Your task to perform on an android device: Open the map Image 0: 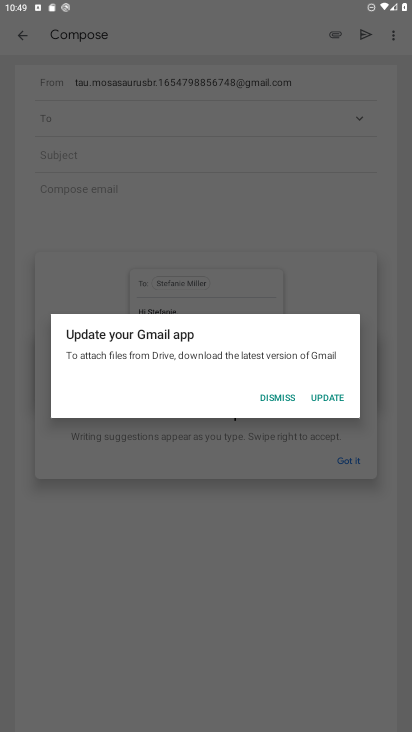
Step 0: press home button
Your task to perform on an android device: Open the map Image 1: 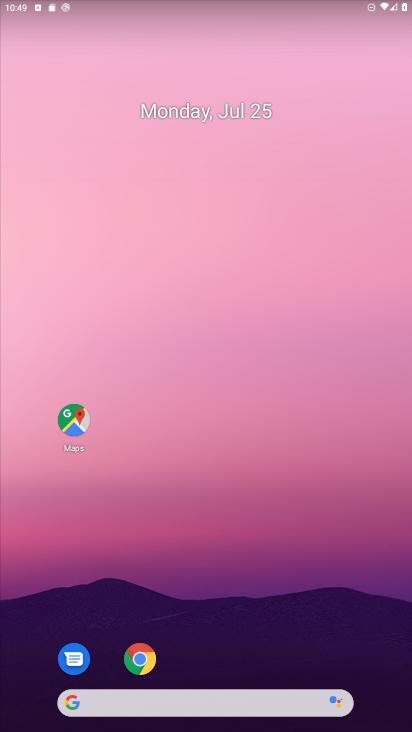
Step 1: click (79, 421)
Your task to perform on an android device: Open the map Image 2: 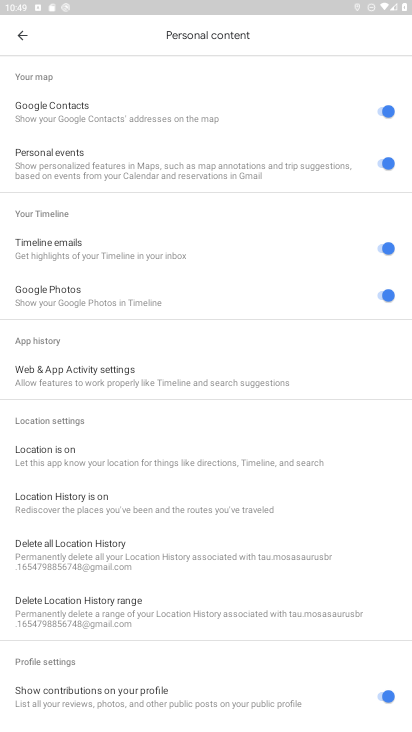
Step 2: click (19, 37)
Your task to perform on an android device: Open the map Image 3: 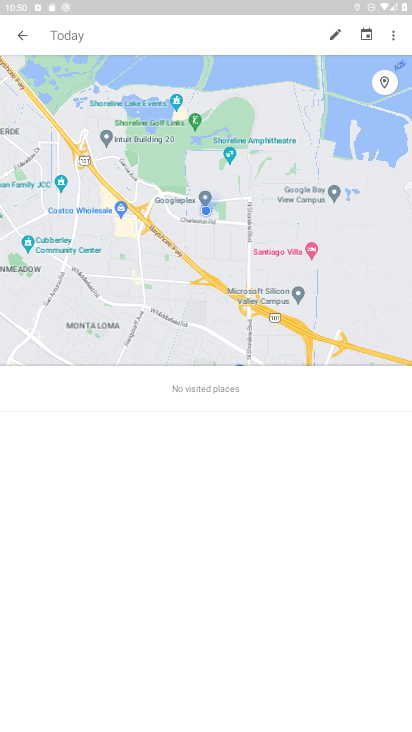
Step 3: task complete